Your task to perform on an android device: Toggle the flashlight Image 0: 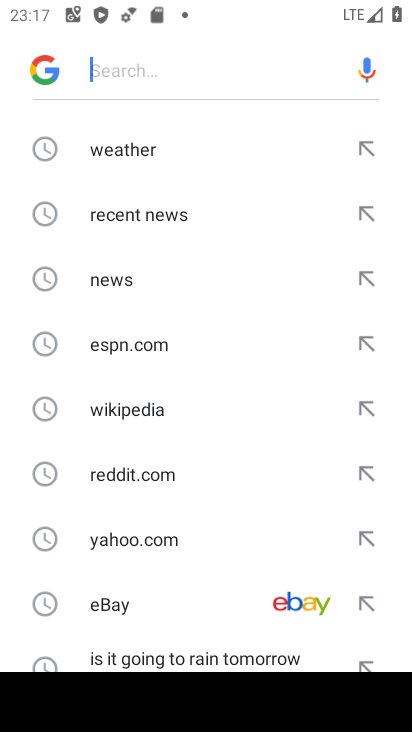
Step 0: press home button
Your task to perform on an android device: Toggle the flashlight Image 1: 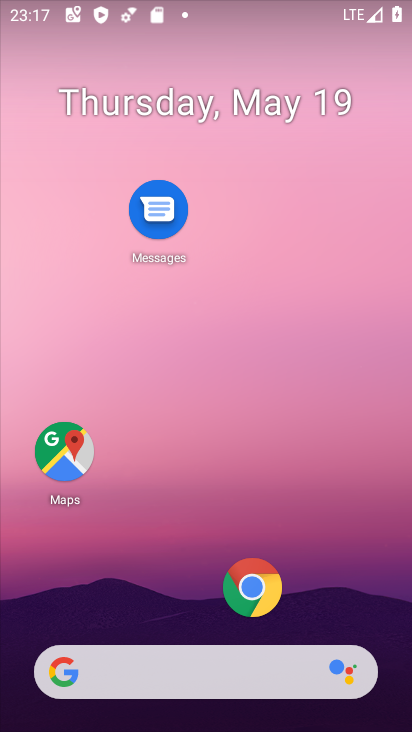
Step 1: drag from (137, 583) to (195, 123)
Your task to perform on an android device: Toggle the flashlight Image 2: 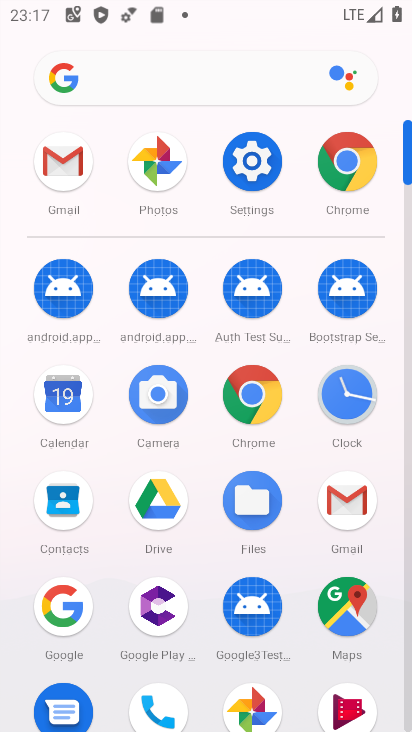
Step 2: click (236, 154)
Your task to perform on an android device: Toggle the flashlight Image 3: 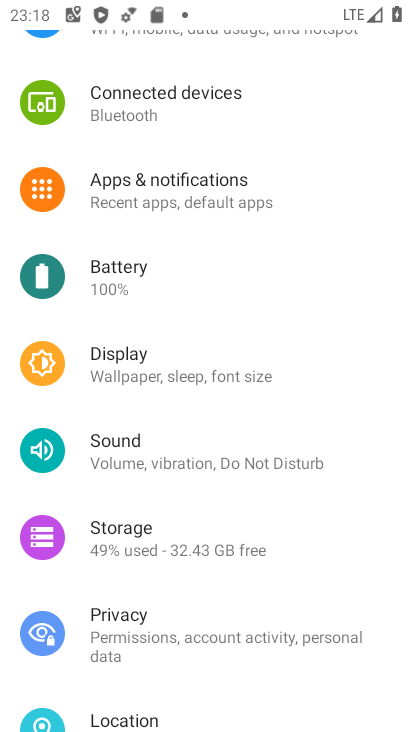
Step 3: task complete